Your task to perform on an android device: Open settings Image 0: 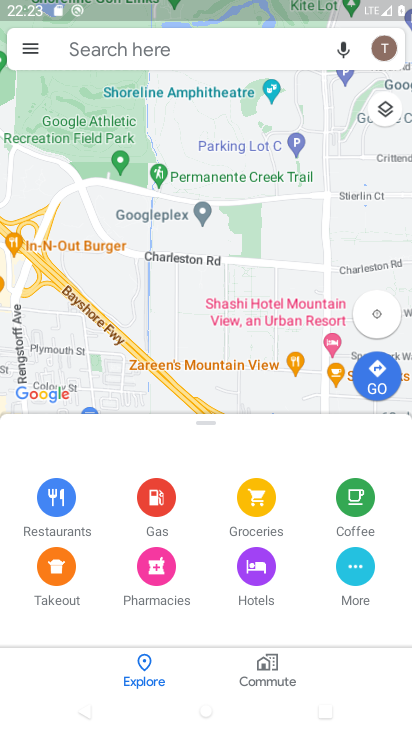
Step 0: drag from (198, 597) to (361, 584)
Your task to perform on an android device: Open settings Image 1: 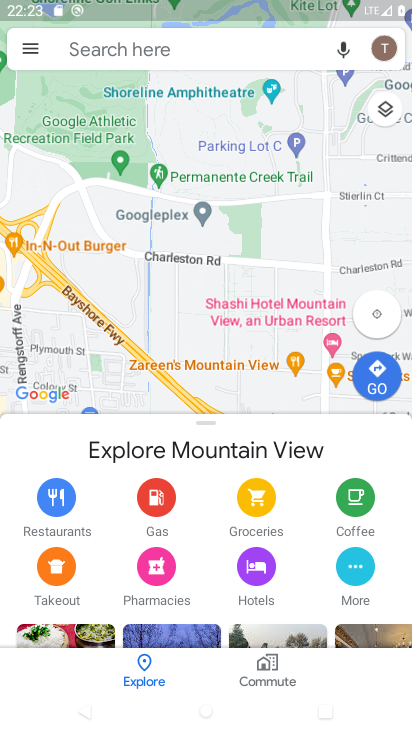
Step 1: press home button
Your task to perform on an android device: Open settings Image 2: 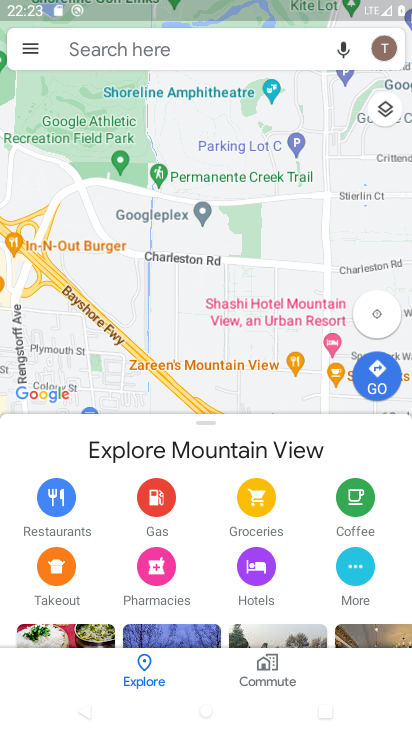
Step 2: drag from (361, 584) to (395, 468)
Your task to perform on an android device: Open settings Image 3: 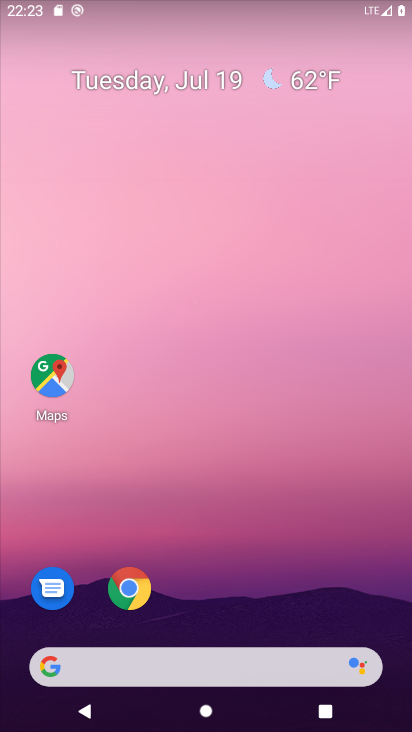
Step 3: drag from (184, 617) to (193, 6)
Your task to perform on an android device: Open settings Image 4: 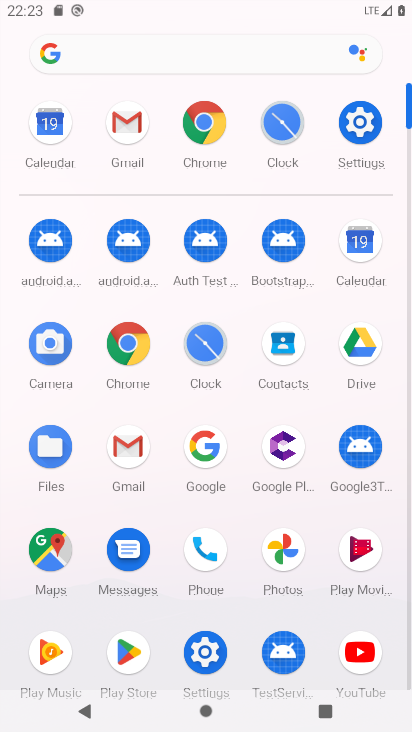
Step 4: click (360, 141)
Your task to perform on an android device: Open settings Image 5: 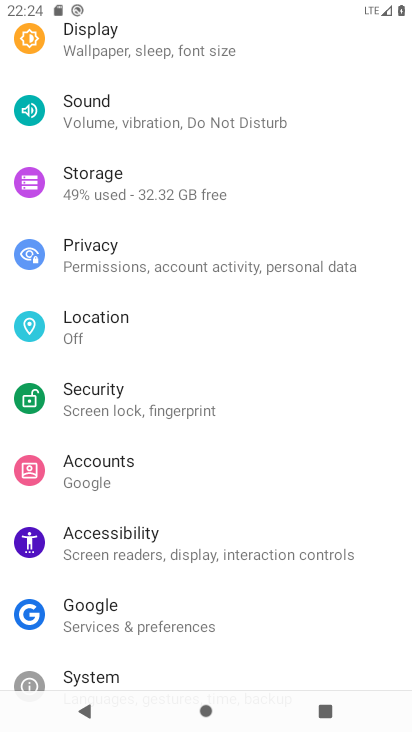
Step 5: task complete